Your task to perform on an android device: add a contact in the contacts app Image 0: 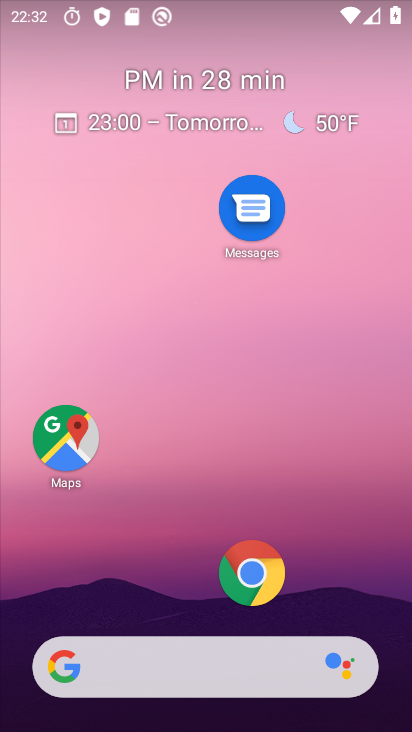
Step 0: drag from (169, 563) to (190, 3)
Your task to perform on an android device: add a contact in the contacts app Image 1: 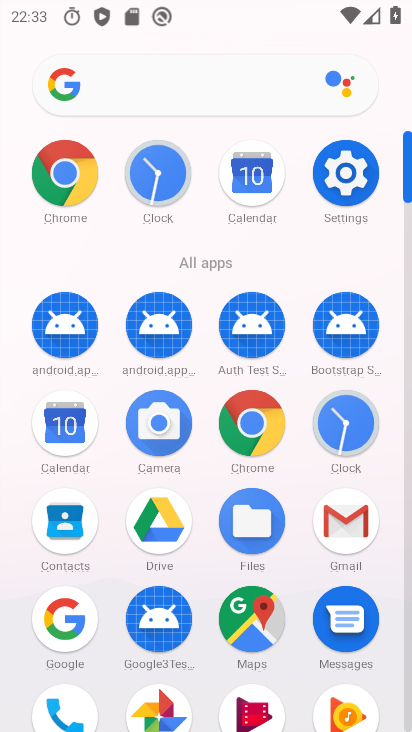
Step 1: click (75, 528)
Your task to perform on an android device: add a contact in the contacts app Image 2: 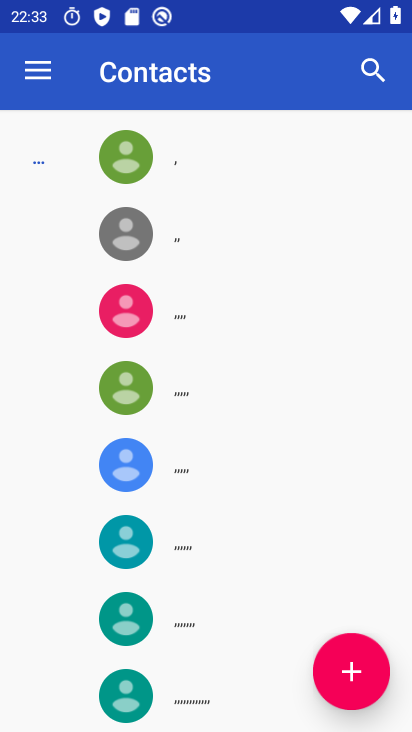
Step 2: click (357, 680)
Your task to perform on an android device: add a contact in the contacts app Image 3: 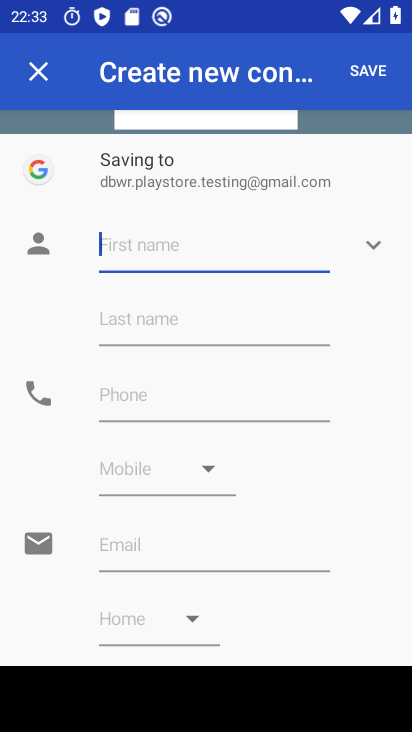
Step 3: type "thth"
Your task to perform on an android device: add a contact in the contacts app Image 4: 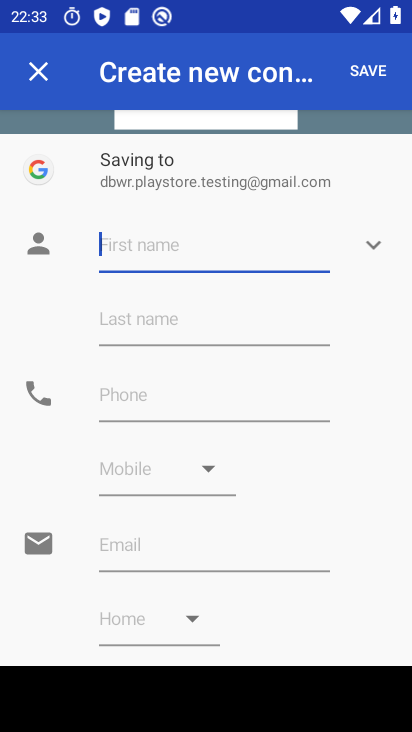
Step 4: click (378, 85)
Your task to perform on an android device: add a contact in the contacts app Image 5: 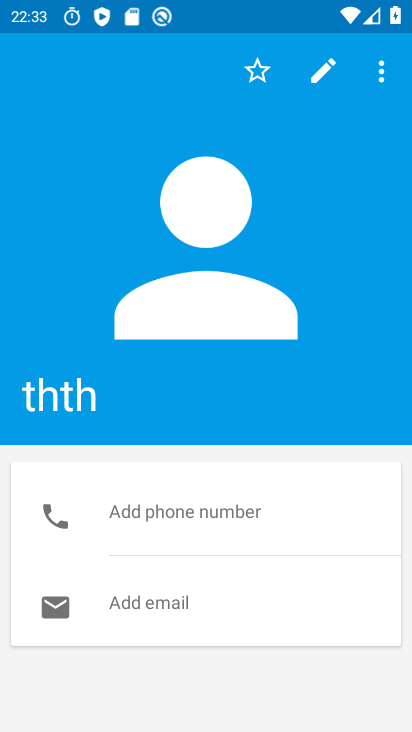
Step 5: task complete